Your task to perform on an android device: Show me the alarms in the clock app Image 0: 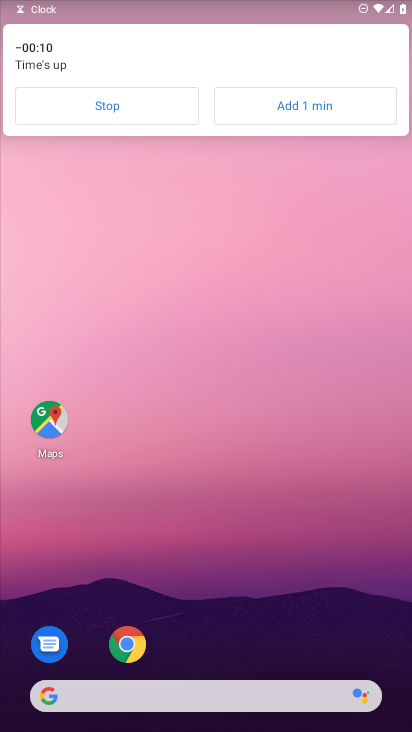
Step 0: click (171, 104)
Your task to perform on an android device: Show me the alarms in the clock app Image 1: 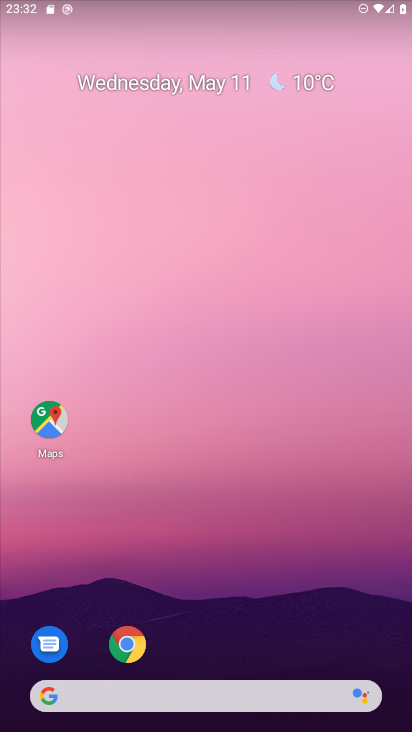
Step 1: drag from (313, 661) to (325, 1)
Your task to perform on an android device: Show me the alarms in the clock app Image 2: 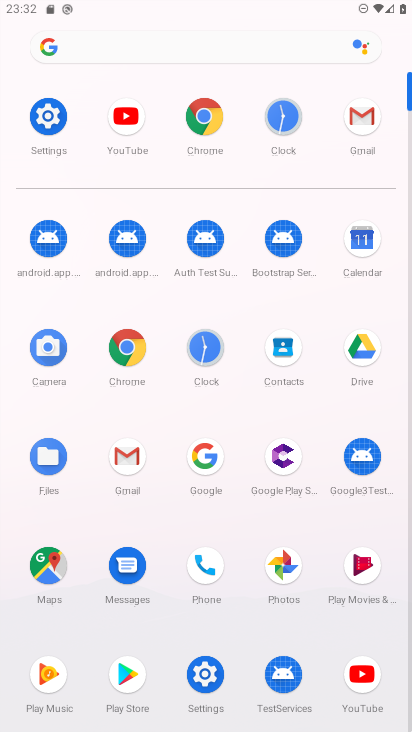
Step 2: click (291, 110)
Your task to perform on an android device: Show me the alarms in the clock app Image 3: 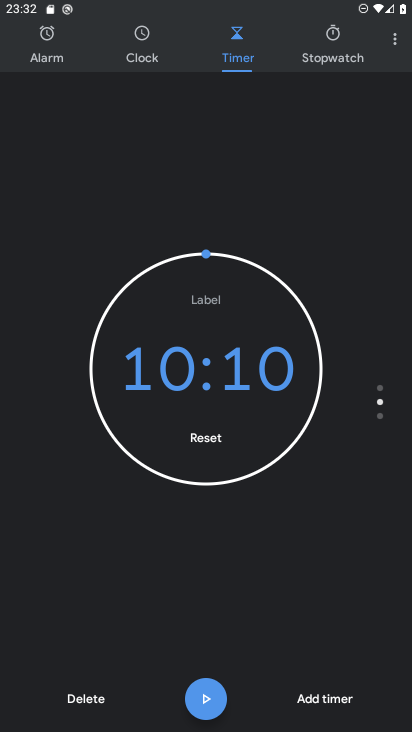
Step 3: click (48, 60)
Your task to perform on an android device: Show me the alarms in the clock app Image 4: 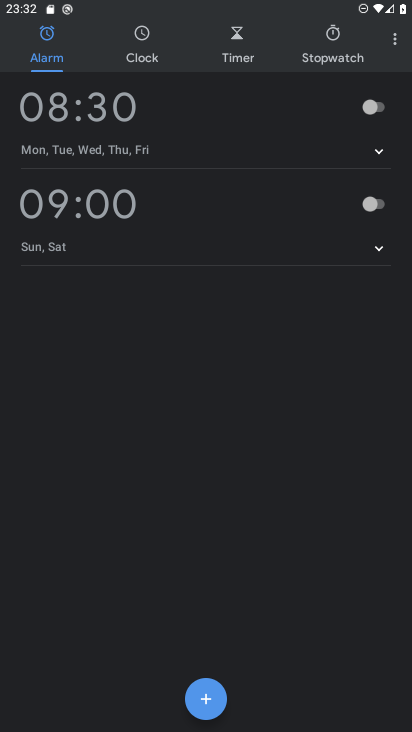
Step 4: task complete